Your task to perform on an android device: open app "Etsy: Buy & Sell Unique Items" (install if not already installed) and go to login screen Image 0: 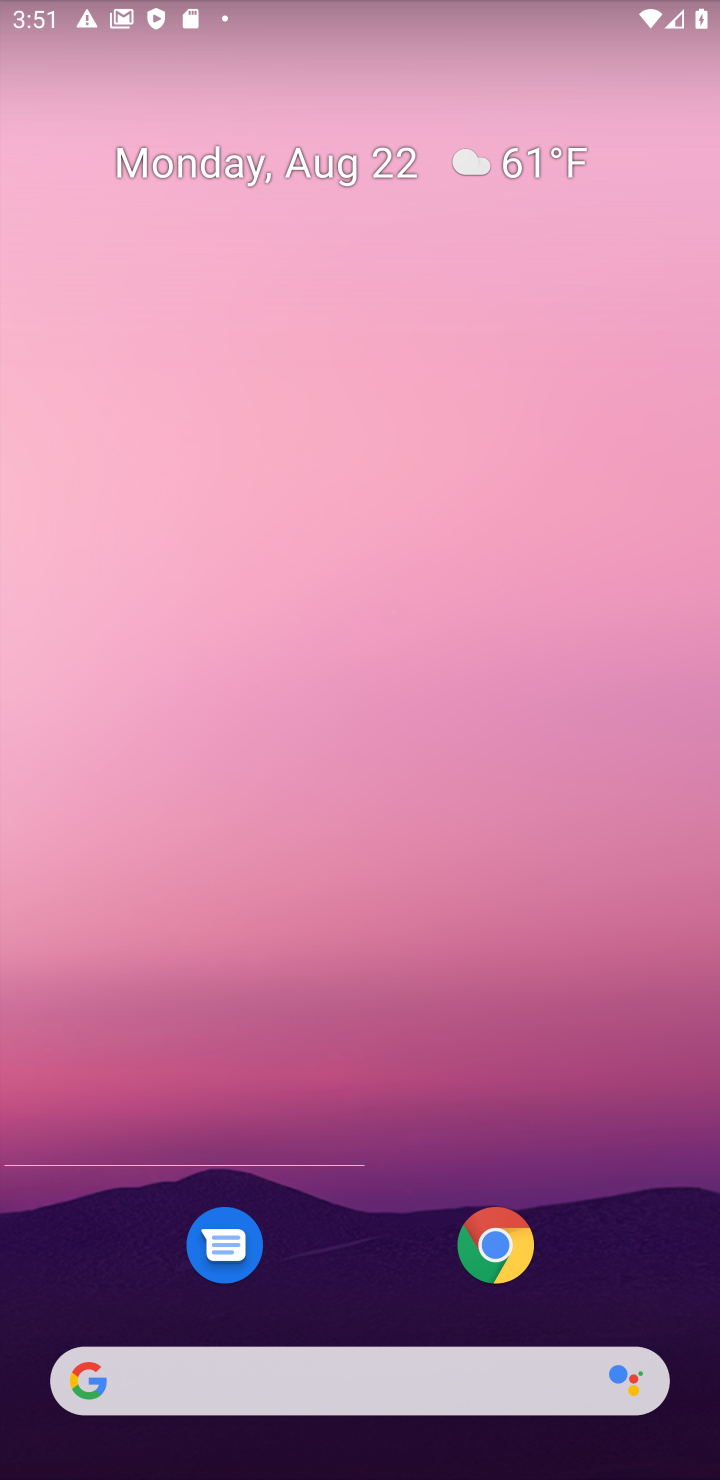
Step 0: press home button
Your task to perform on an android device: open app "Etsy: Buy & Sell Unique Items" (install if not already installed) and go to login screen Image 1: 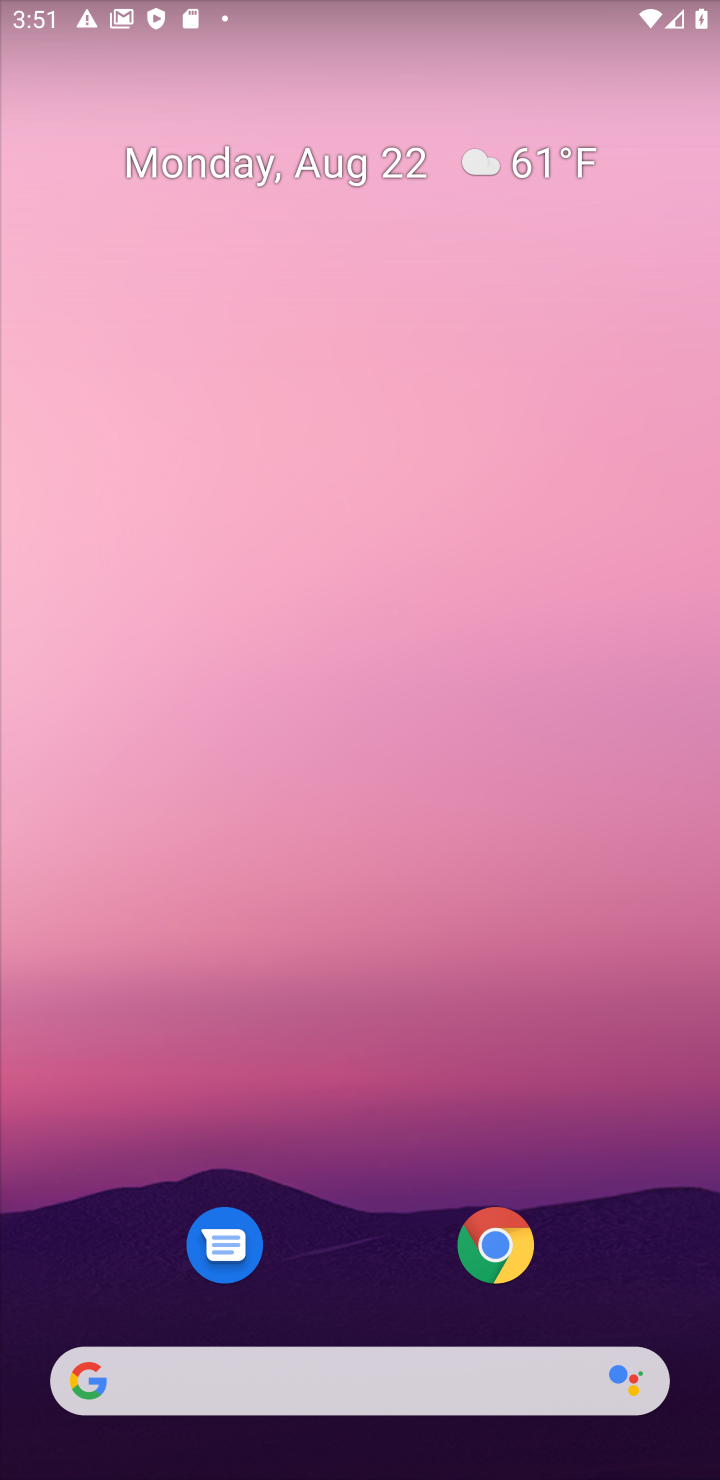
Step 1: drag from (613, 1120) to (594, 122)
Your task to perform on an android device: open app "Etsy: Buy & Sell Unique Items" (install if not already installed) and go to login screen Image 2: 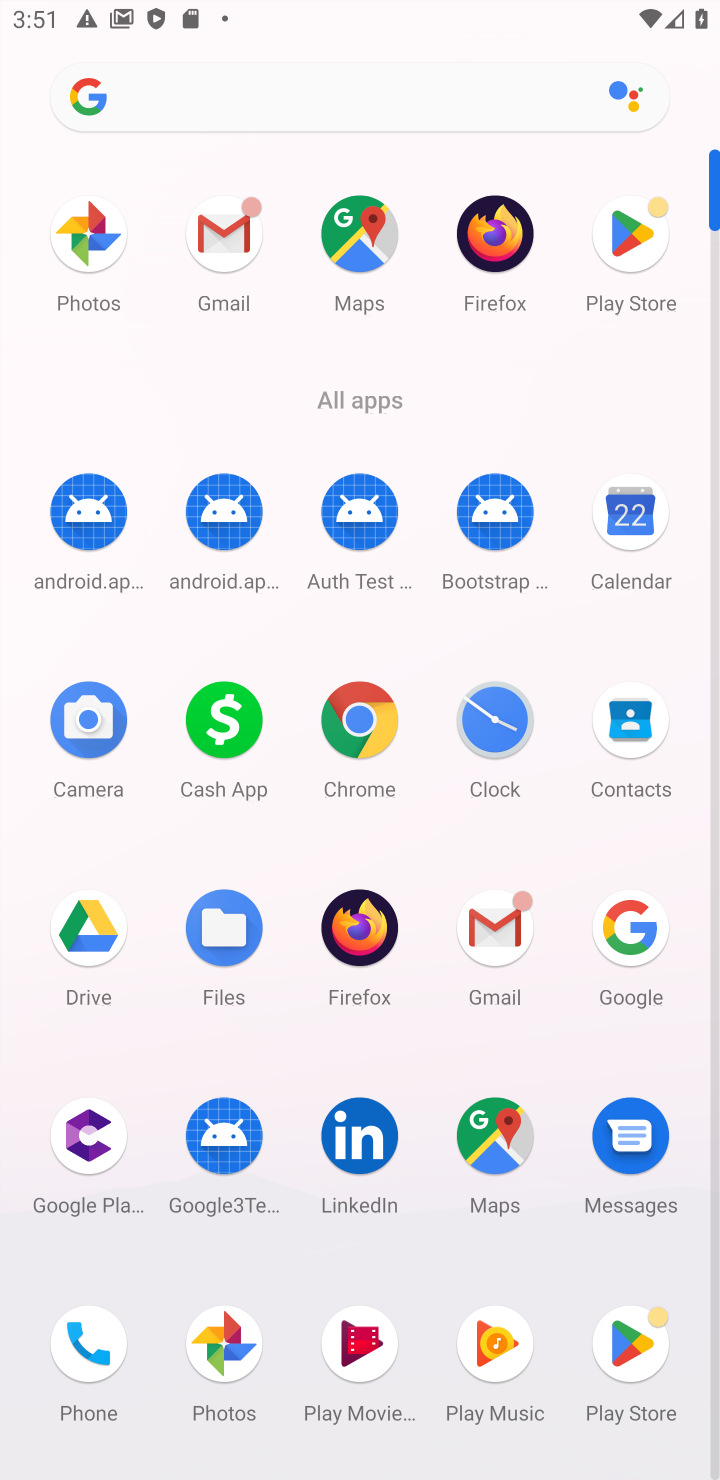
Step 2: click (637, 232)
Your task to perform on an android device: open app "Etsy: Buy & Sell Unique Items" (install if not already installed) and go to login screen Image 3: 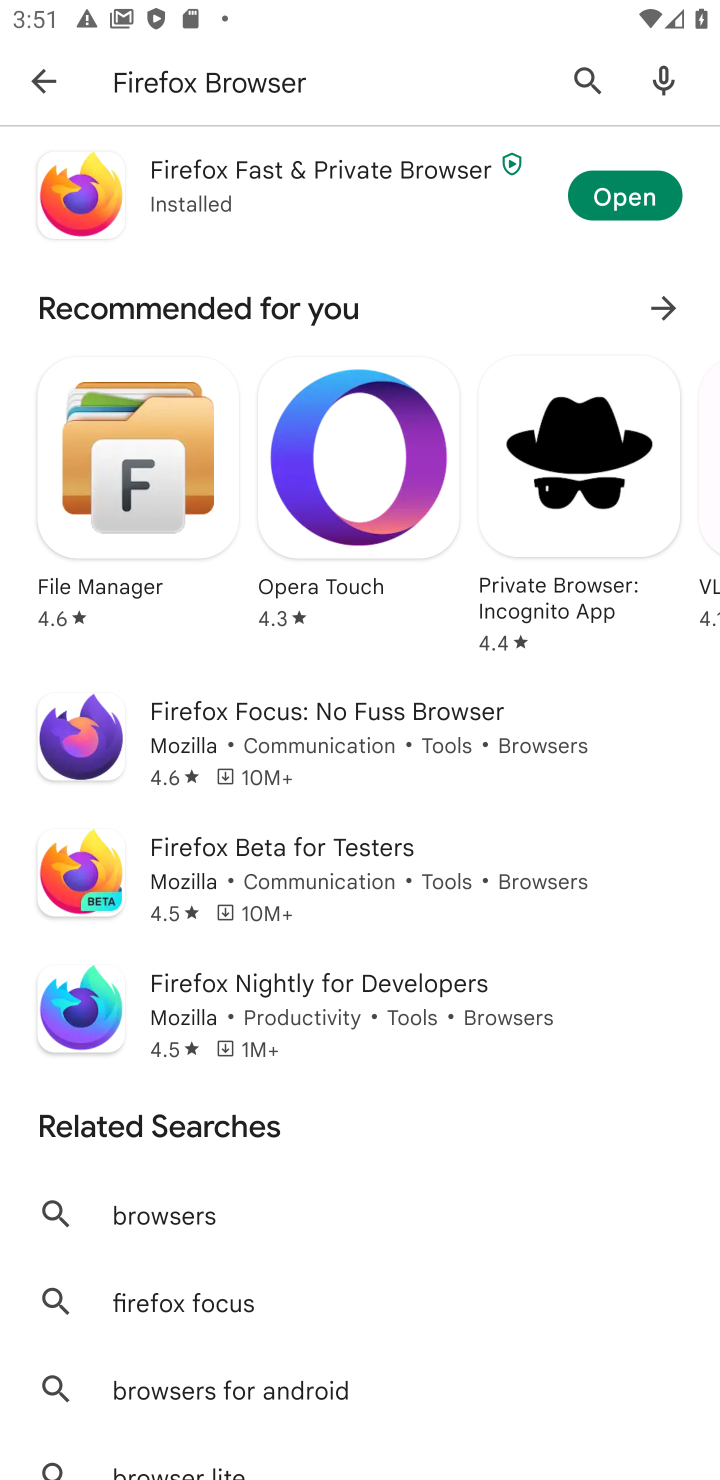
Step 3: press back button
Your task to perform on an android device: open app "Etsy: Buy & Sell Unique Items" (install if not already installed) and go to login screen Image 4: 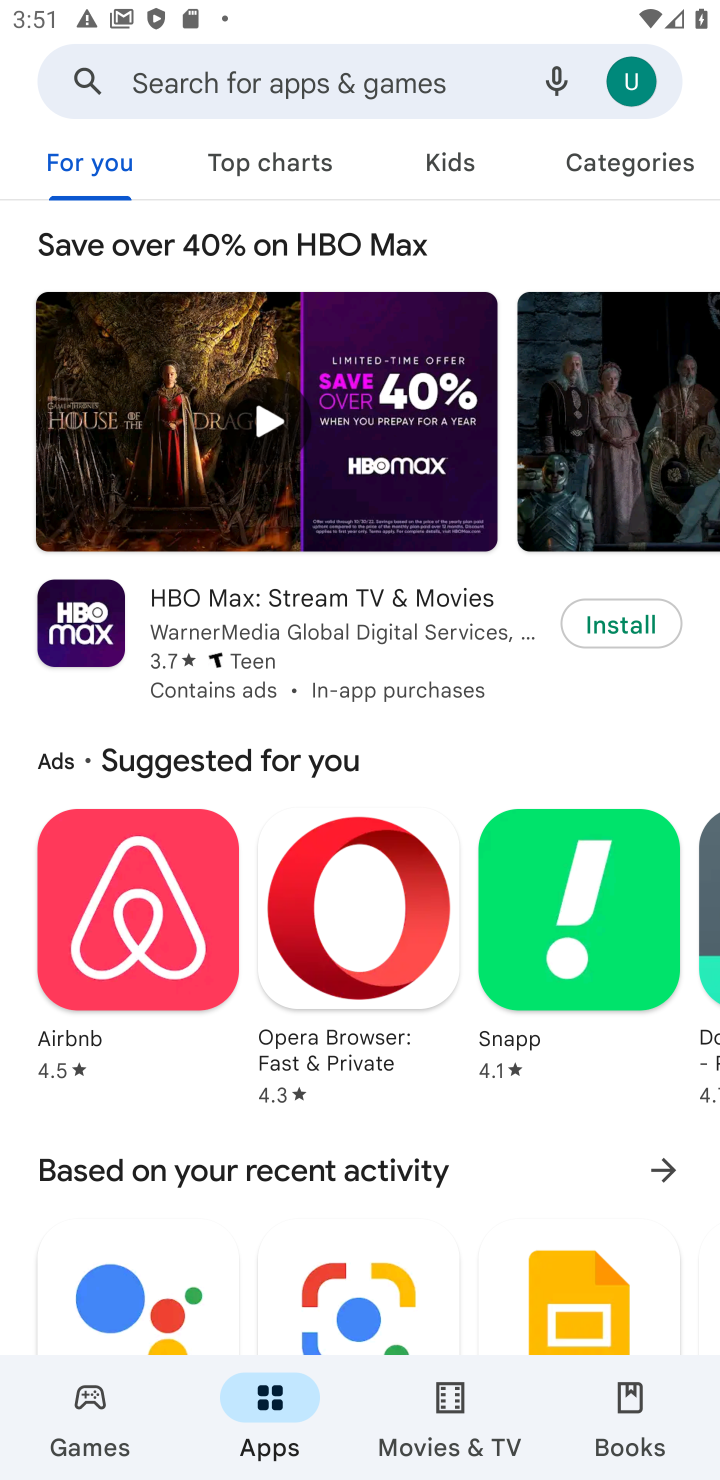
Step 4: click (292, 86)
Your task to perform on an android device: open app "Etsy: Buy & Sell Unique Items" (install if not already installed) and go to login screen Image 5: 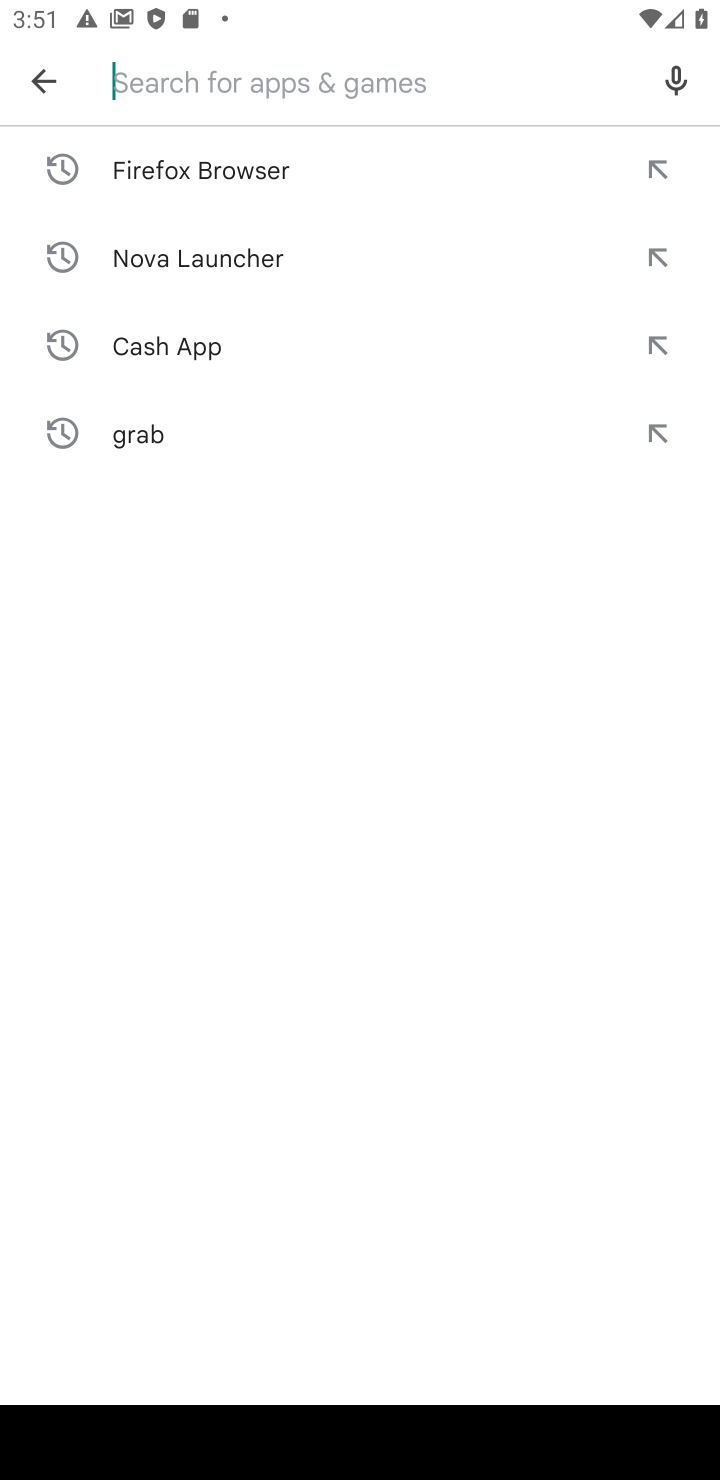
Step 5: type "Etsy: Buy & Sell Unique Items"
Your task to perform on an android device: open app "Etsy: Buy & Sell Unique Items" (install if not already installed) and go to login screen Image 6: 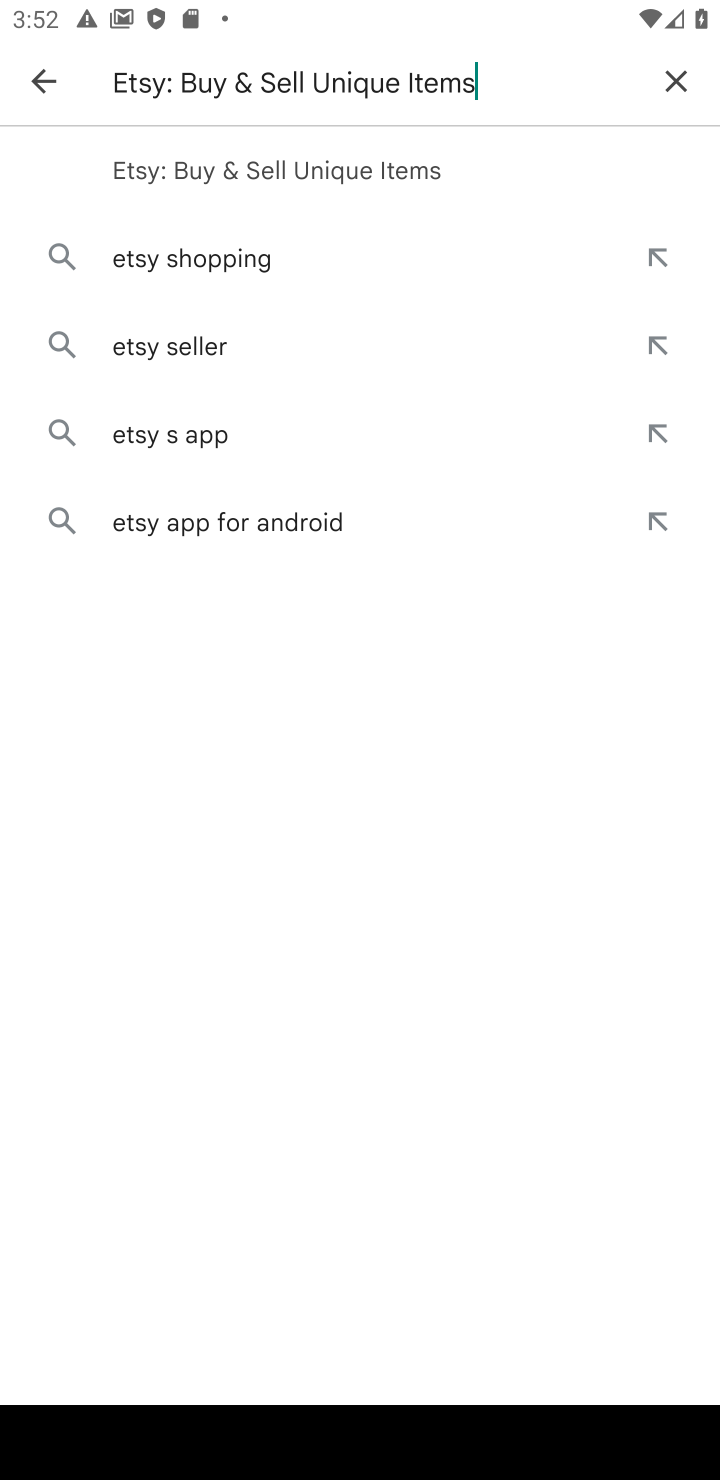
Step 6: press enter
Your task to perform on an android device: open app "Etsy: Buy & Sell Unique Items" (install if not already installed) and go to login screen Image 7: 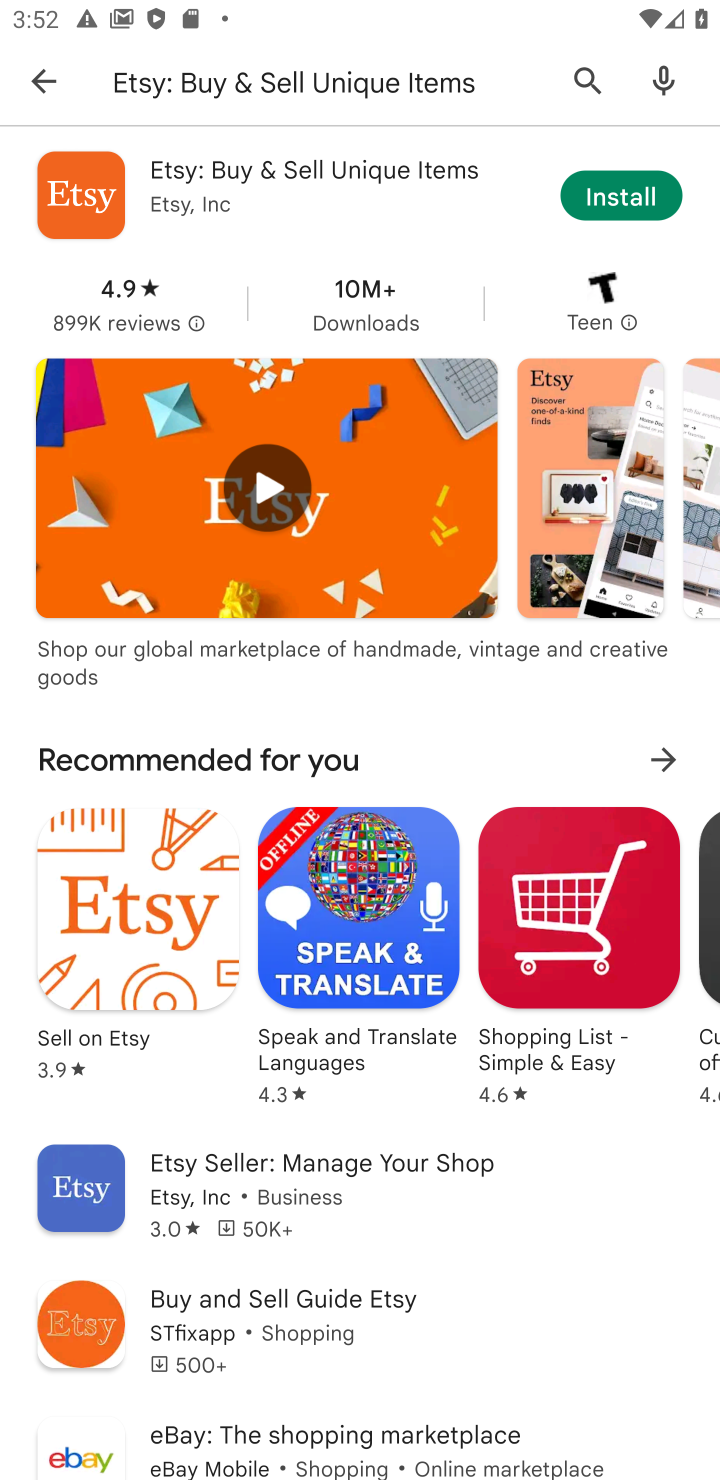
Step 7: click (630, 189)
Your task to perform on an android device: open app "Etsy: Buy & Sell Unique Items" (install if not already installed) and go to login screen Image 8: 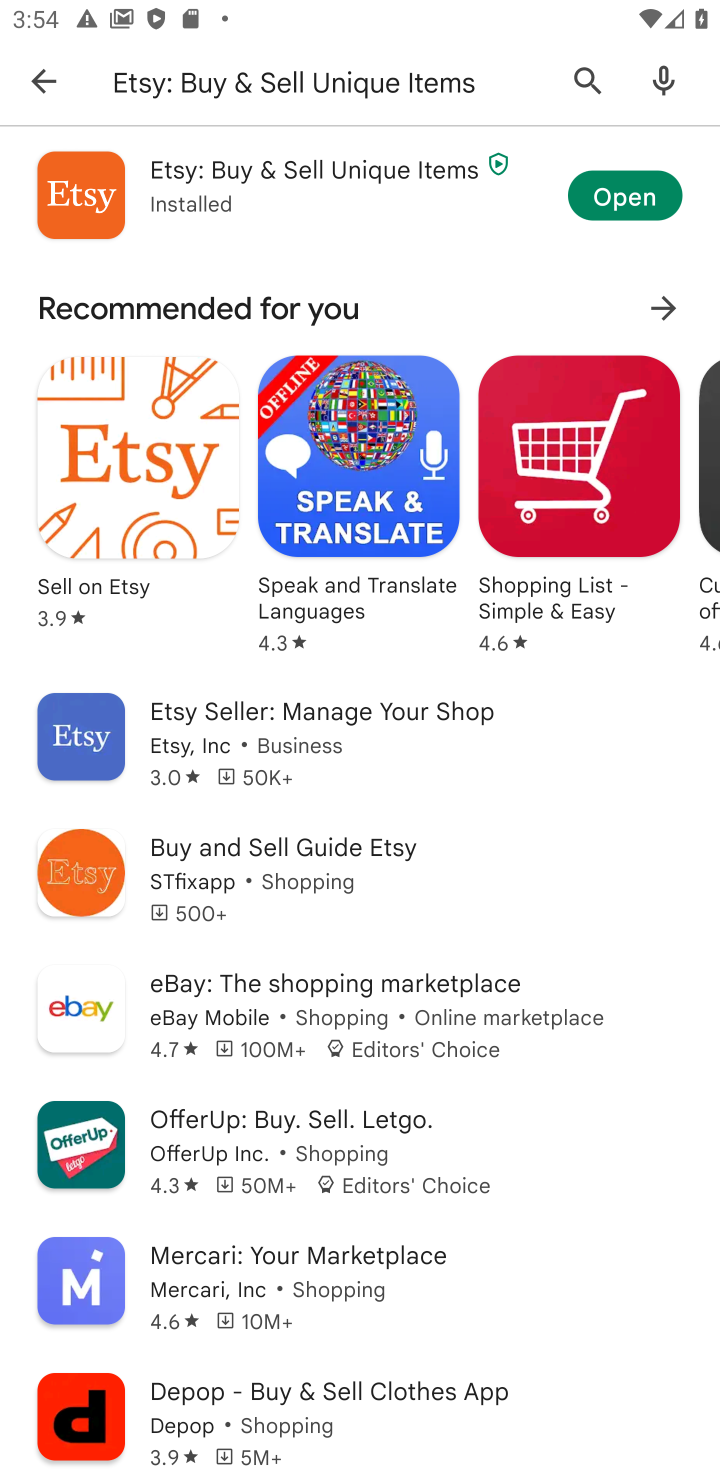
Step 8: click (637, 197)
Your task to perform on an android device: open app "Etsy: Buy & Sell Unique Items" (install if not already installed) and go to login screen Image 9: 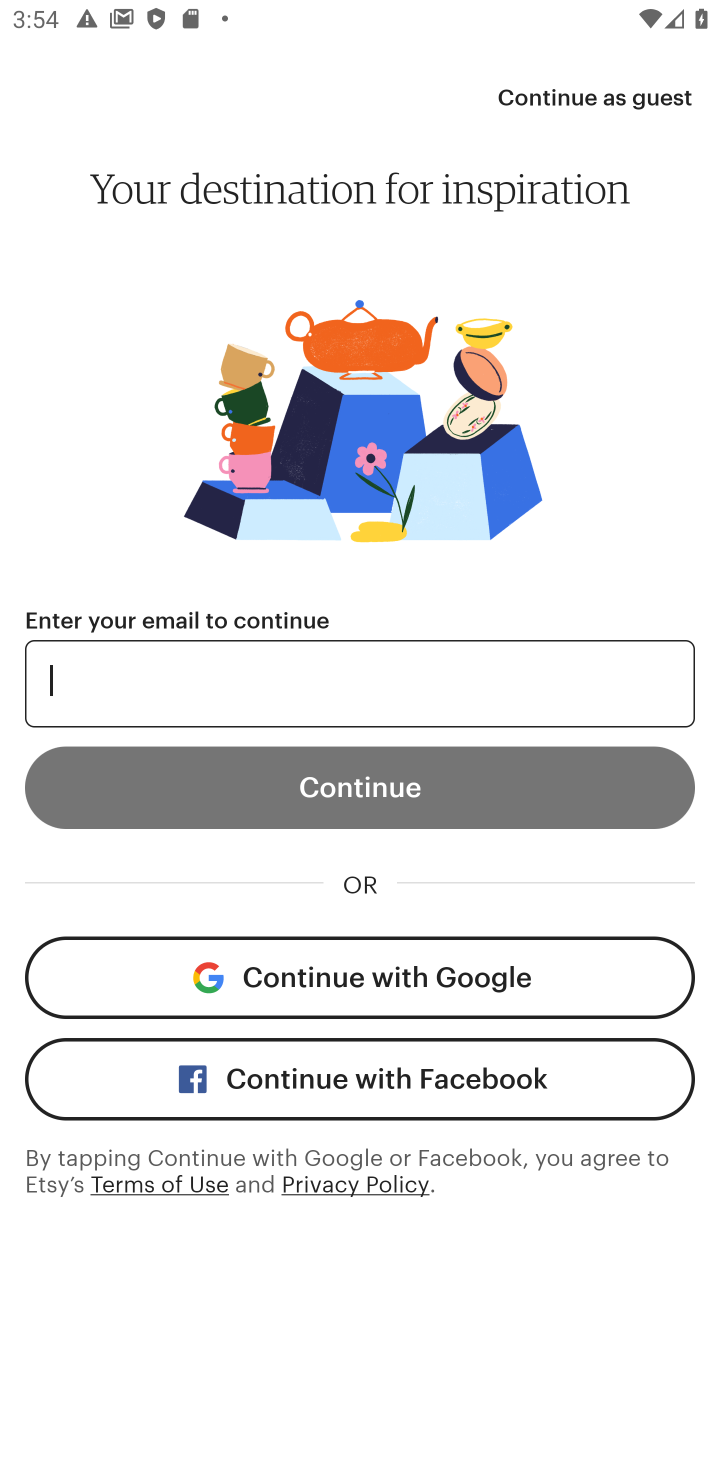
Step 9: task complete